Your task to perform on an android device: change keyboard looks Image 0: 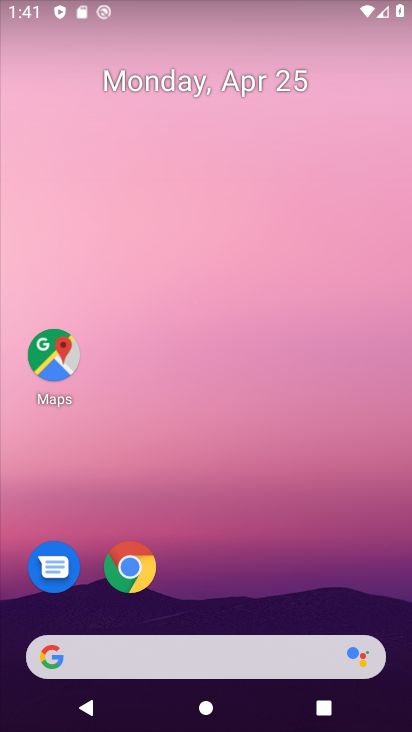
Step 0: drag from (238, 601) to (218, 32)
Your task to perform on an android device: change keyboard looks Image 1: 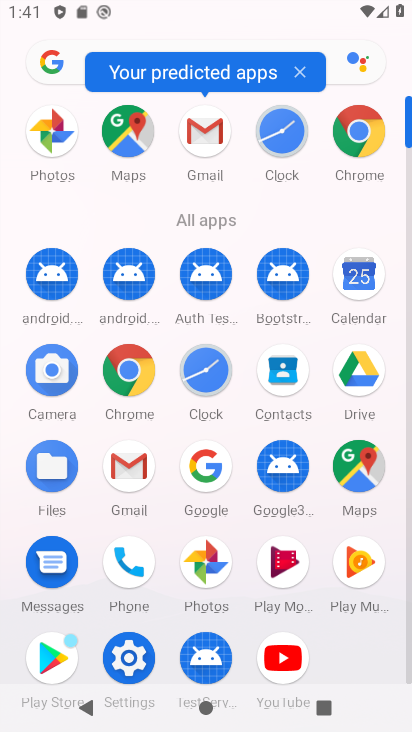
Step 1: click (134, 652)
Your task to perform on an android device: change keyboard looks Image 2: 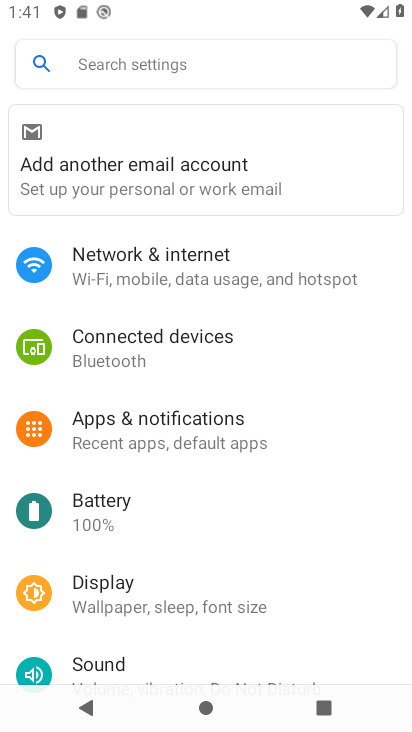
Step 2: drag from (188, 639) to (227, 9)
Your task to perform on an android device: change keyboard looks Image 3: 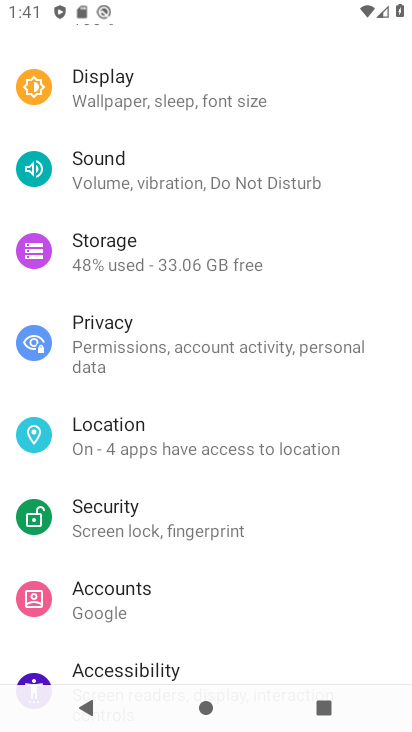
Step 3: drag from (189, 616) to (276, 72)
Your task to perform on an android device: change keyboard looks Image 4: 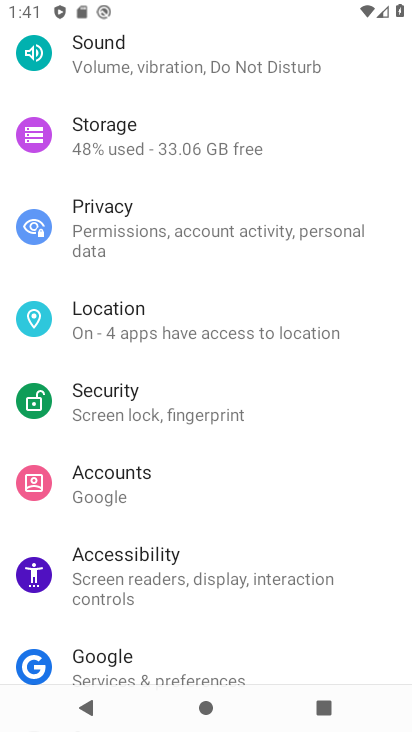
Step 4: drag from (237, 510) to (235, 37)
Your task to perform on an android device: change keyboard looks Image 5: 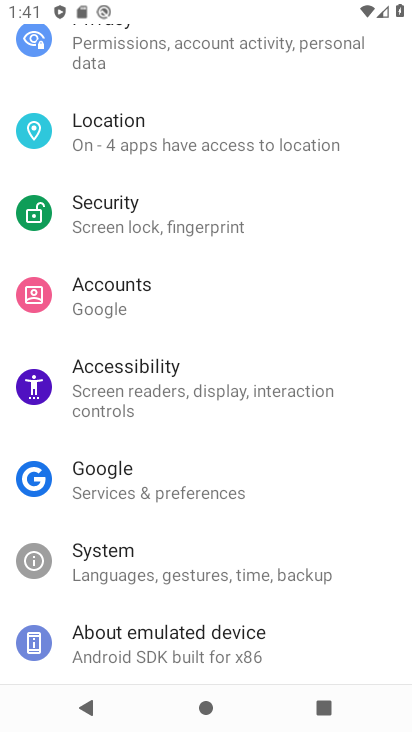
Step 5: click (241, 561)
Your task to perform on an android device: change keyboard looks Image 6: 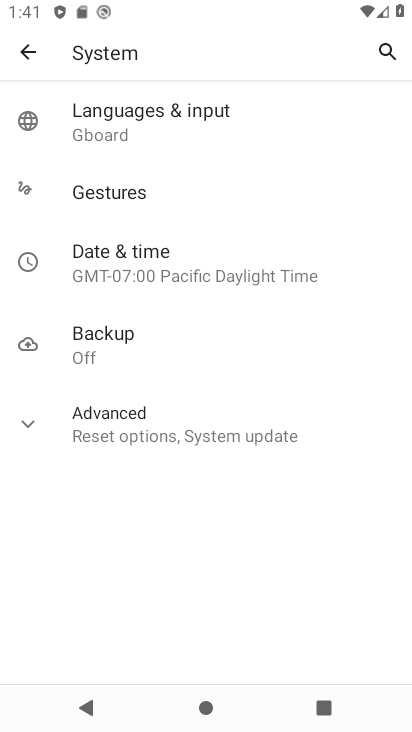
Step 6: click (229, 122)
Your task to perform on an android device: change keyboard looks Image 7: 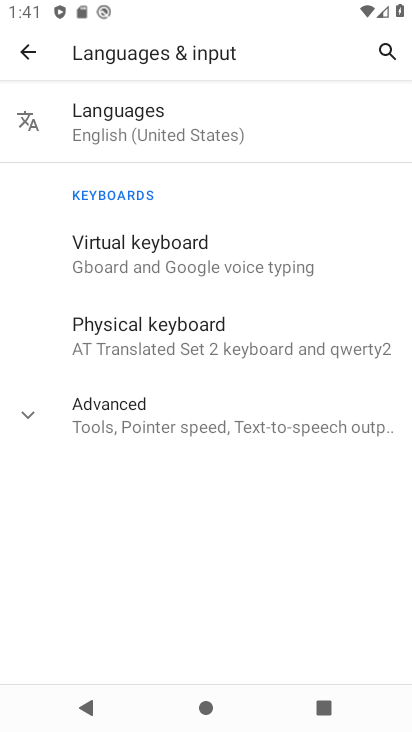
Step 7: click (243, 257)
Your task to perform on an android device: change keyboard looks Image 8: 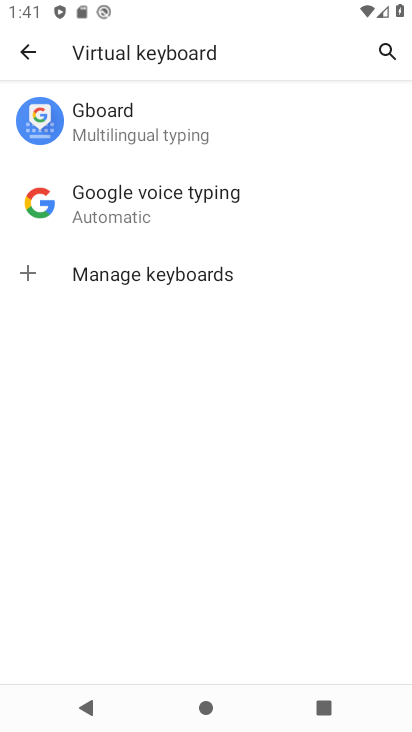
Step 8: click (204, 114)
Your task to perform on an android device: change keyboard looks Image 9: 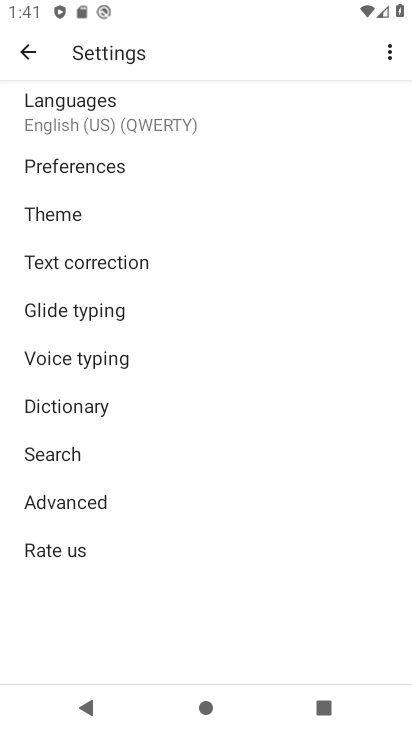
Step 9: click (188, 212)
Your task to perform on an android device: change keyboard looks Image 10: 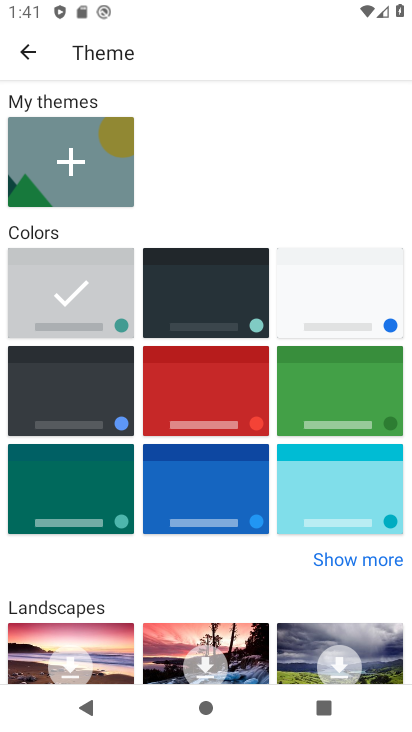
Step 10: click (326, 334)
Your task to perform on an android device: change keyboard looks Image 11: 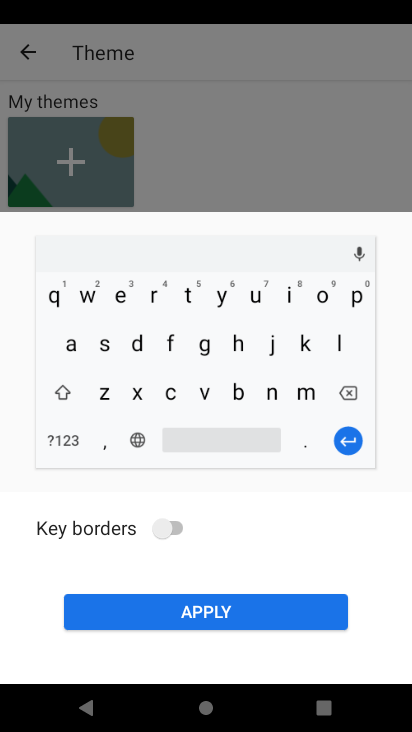
Step 11: click (256, 603)
Your task to perform on an android device: change keyboard looks Image 12: 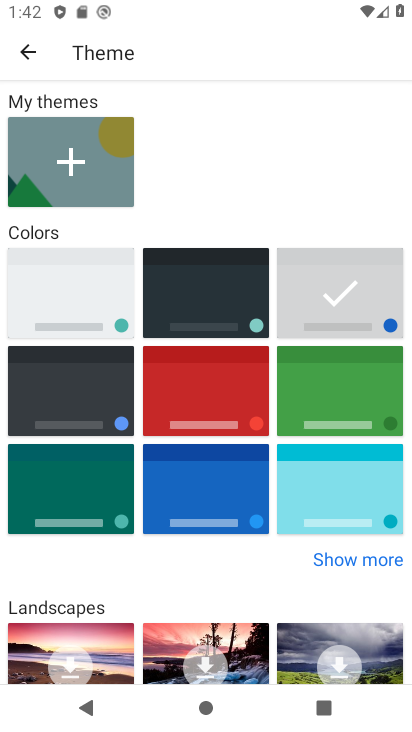
Step 12: task complete